Your task to perform on an android device: Open Google Maps and go to "Timeline" Image 0: 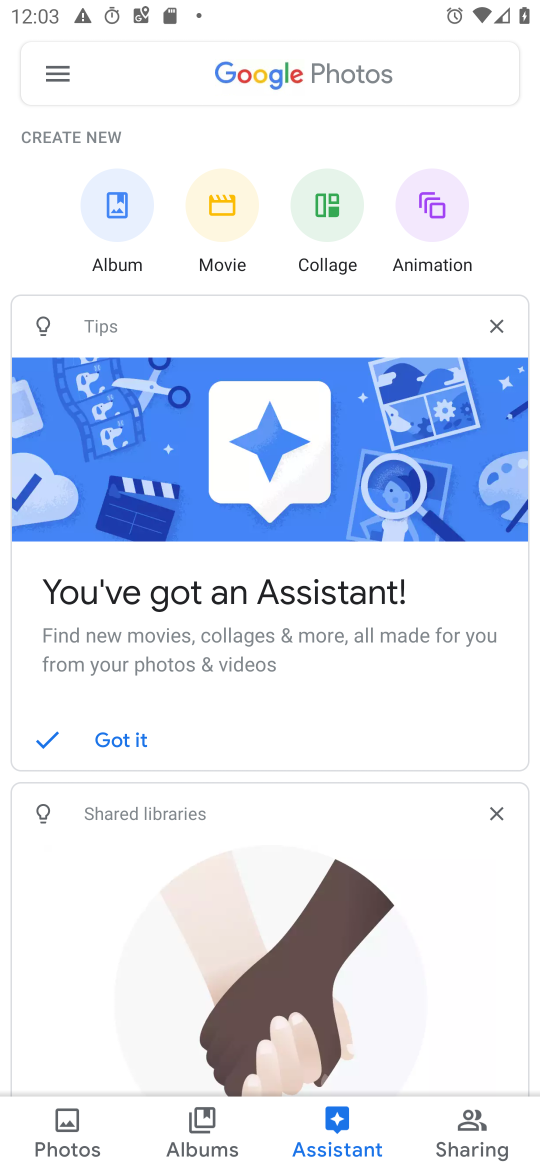
Step 0: press home button
Your task to perform on an android device: Open Google Maps and go to "Timeline" Image 1: 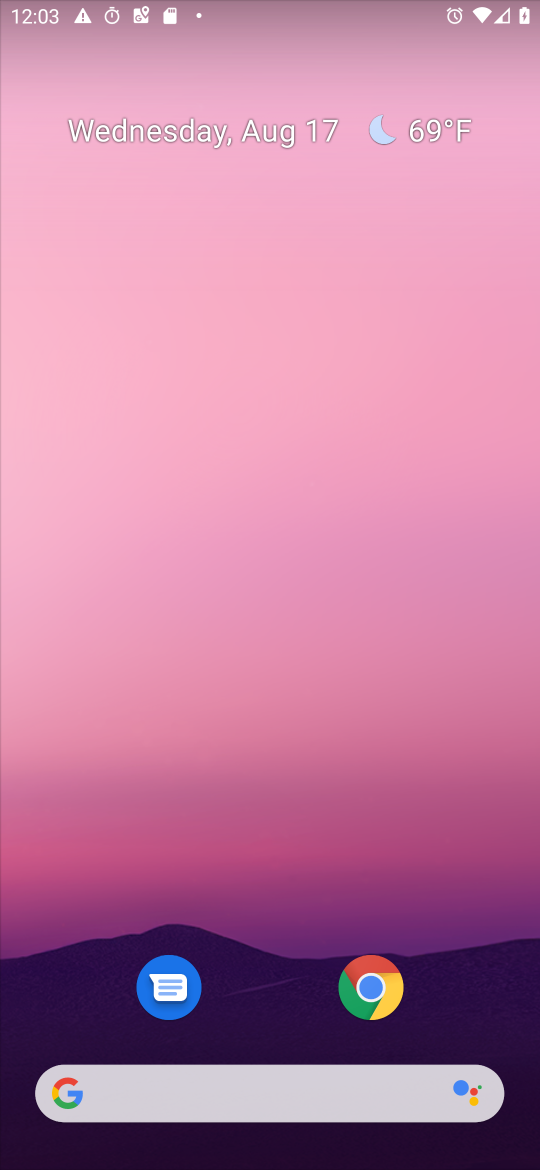
Step 1: drag from (22, 1123) to (376, 355)
Your task to perform on an android device: Open Google Maps and go to "Timeline" Image 2: 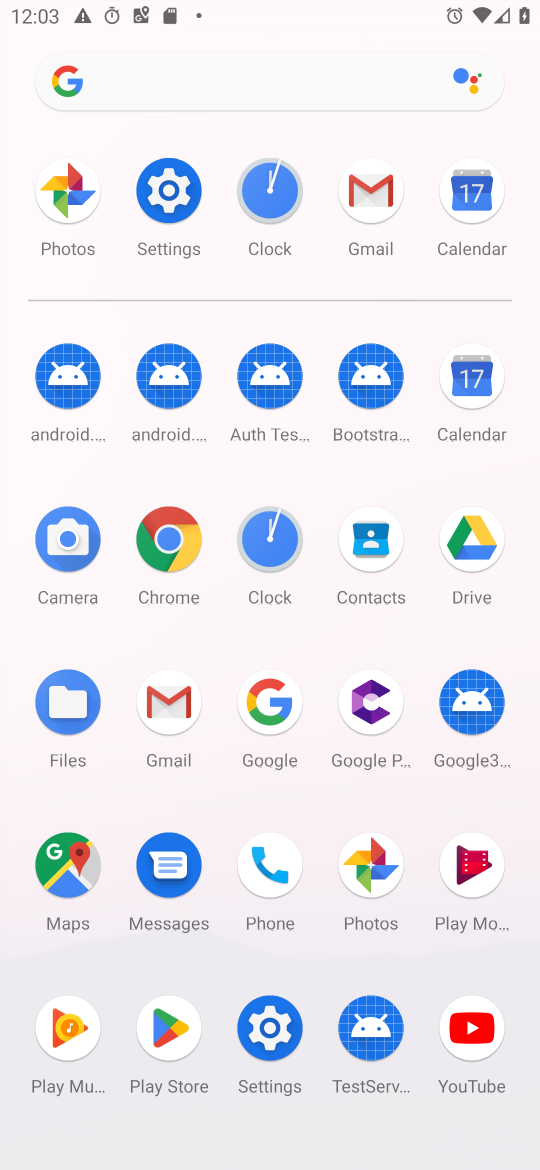
Step 2: click (65, 871)
Your task to perform on an android device: Open Google Maps and go to "Timeline" Image 3: 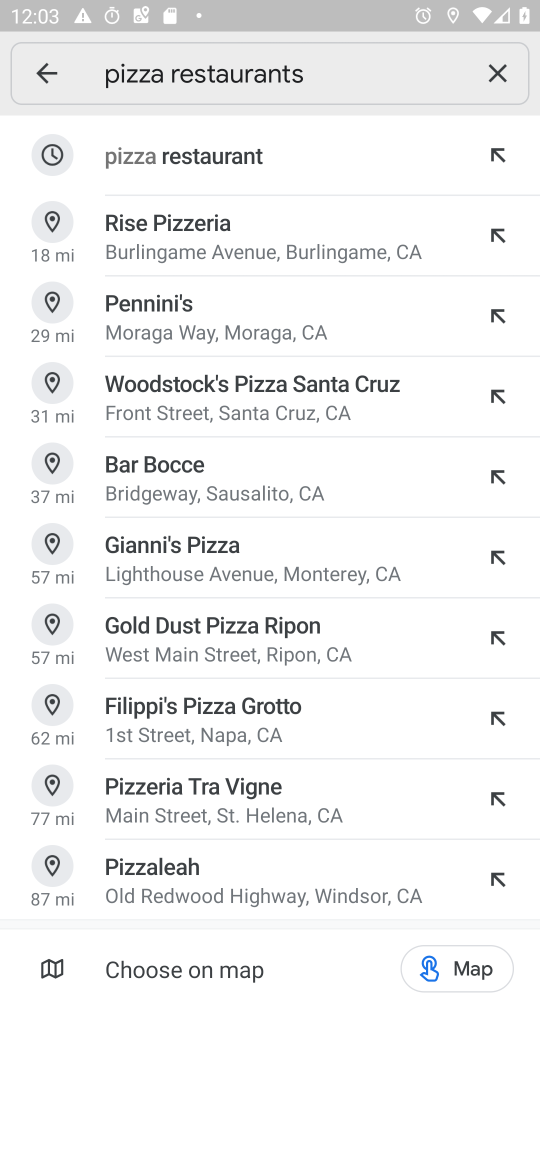
Step 3: click (46, 73)
Your task to perform on an android device: Open Google Maps and go to "Timeline" Image 4: 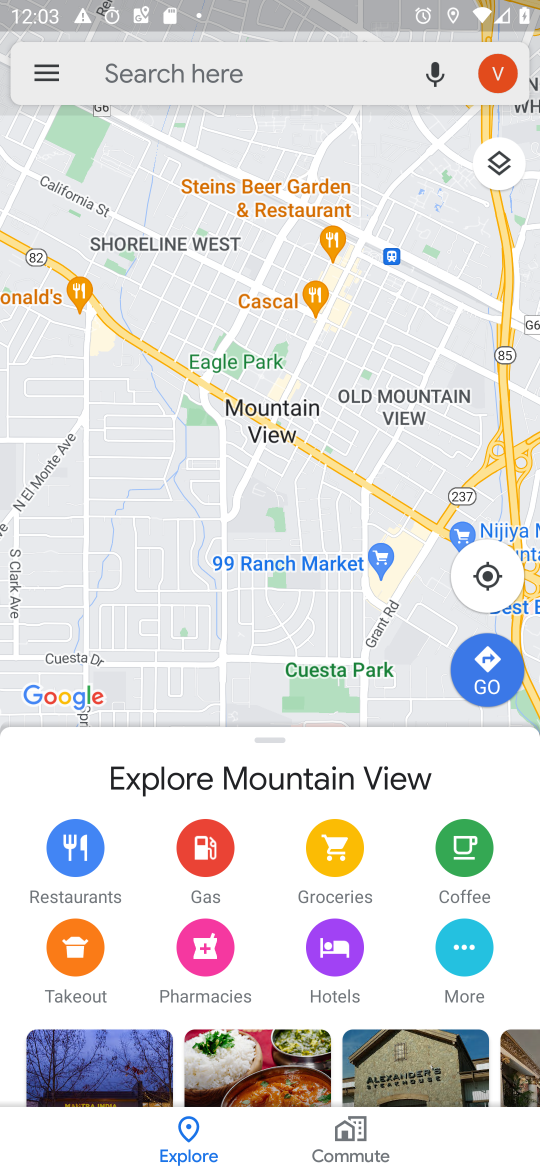
Step 4: click (43, 71)
Your task to perform on an android device: Open Google Maps and go to "Timeline" Image 5: 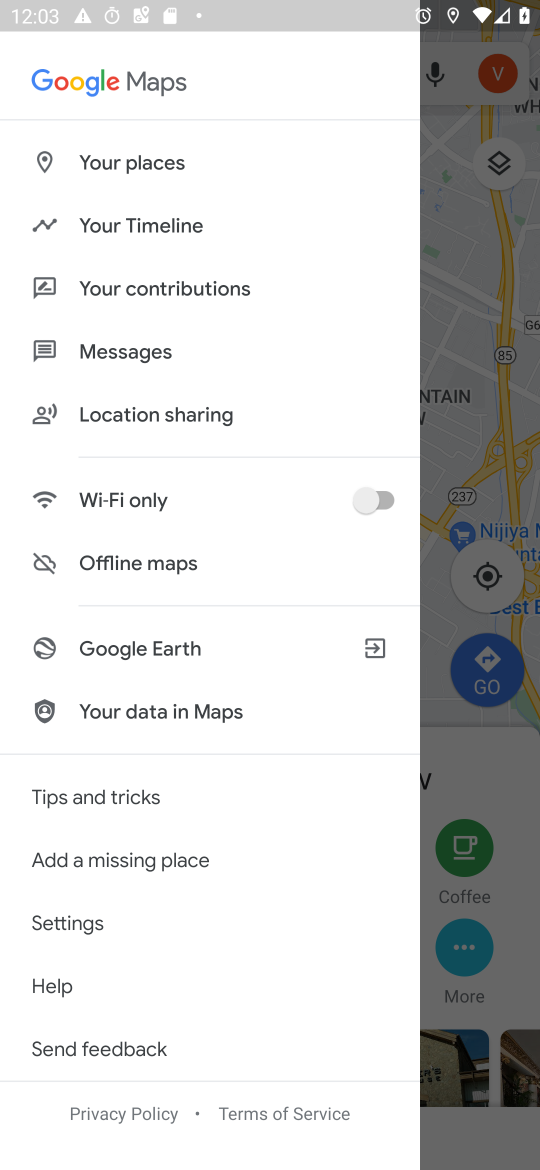
Step 5: click (177, 227)
Your task to perform on an android device: Open Google Maps and go to "Timeline" Image 6: 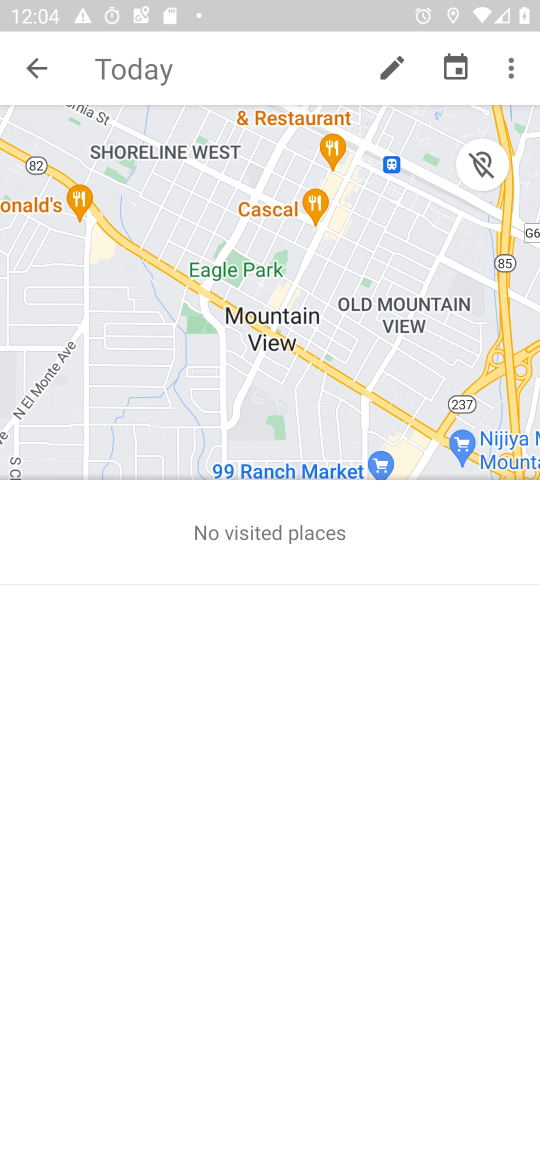
Step 6: task complete